Your task to perform on an android device: Open settings Image 0: 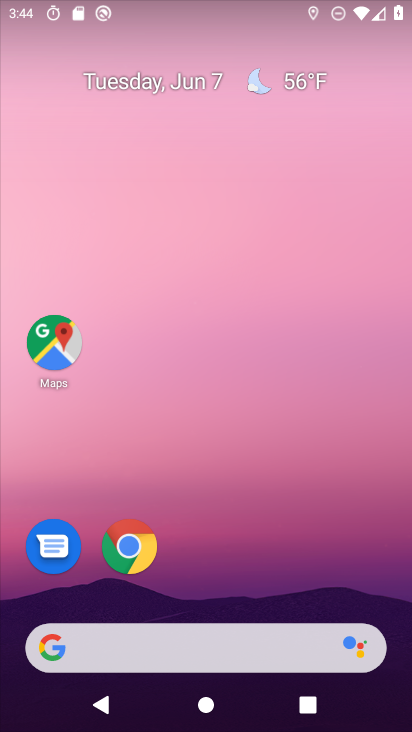
Step 0: drag from (212, 480) to (136, 1)
Your task to perform on an android device: Open settings Image 1: 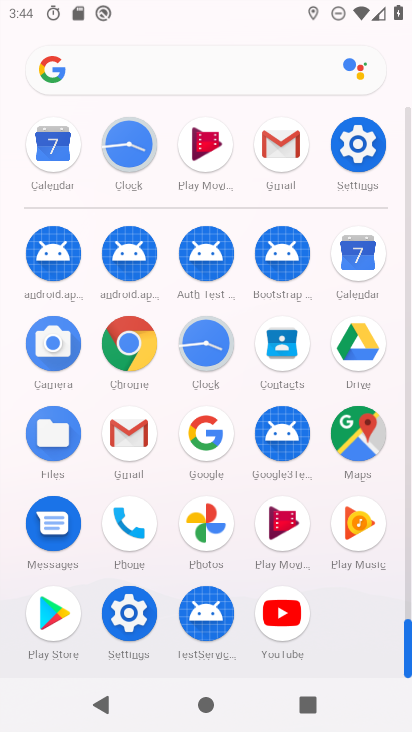
Step 1: drag from (11, 557) to (17, 272)
Your task to perform on an android device: Open settings Image 2: 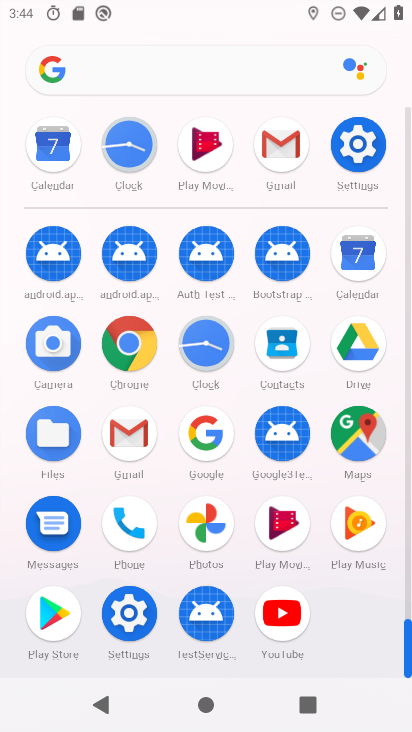
Step 2: click (128, 612)
Your task to perform on an android device: Open settings Image 3: 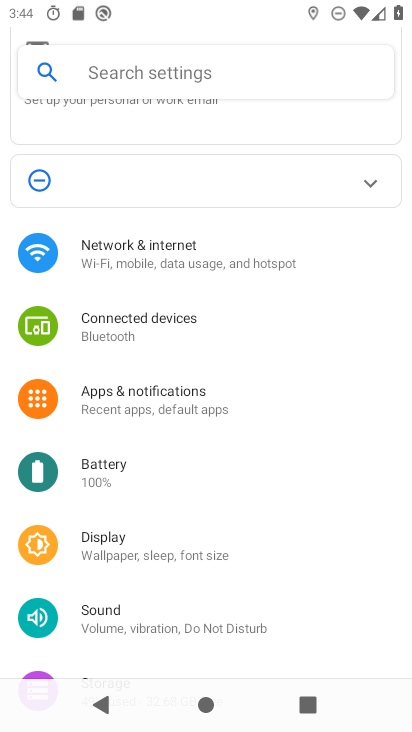
Step 3: task complete